Your task to perform on an android device: What is the news today? Image 0: 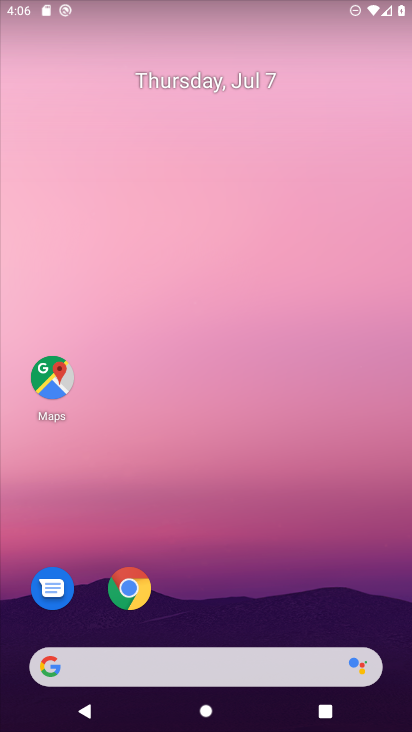
Step 0: click (128, 585)
Your task to perform on an android device: What is the news today? Image 1: 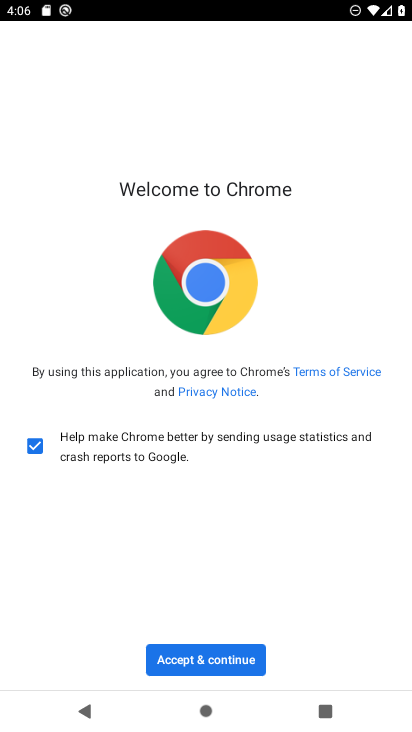
Step 1: click (199, 660)
Your task to perform on an android device: What is the news today? Image 2: 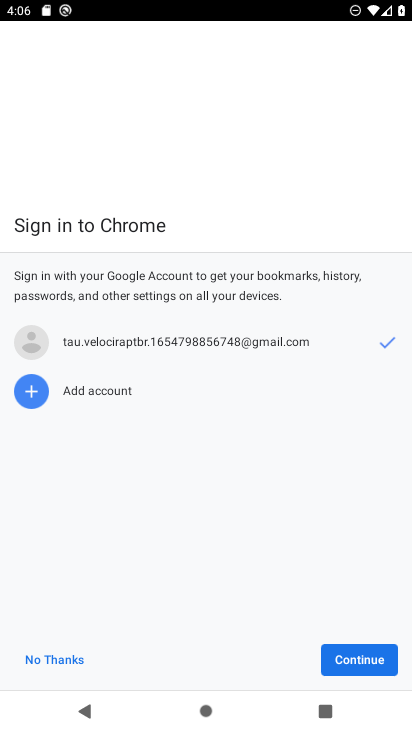
Step 2: click (340, 656)
Your task to perform on an android device: What is the news today? Image 3: 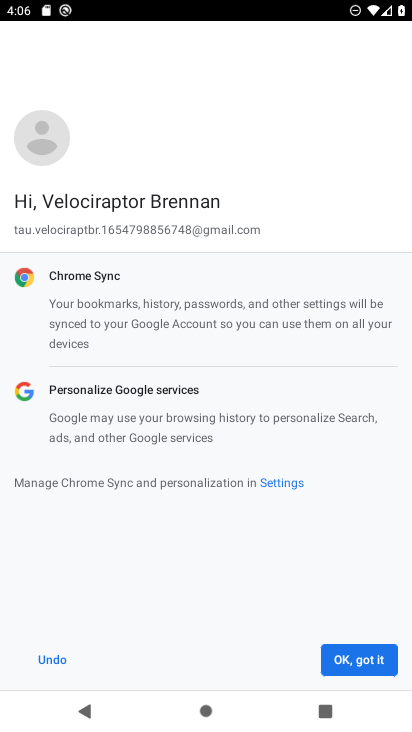
Step 3: click (340, 656)
Your task to perform on an android device: What is the news today? Image 4: 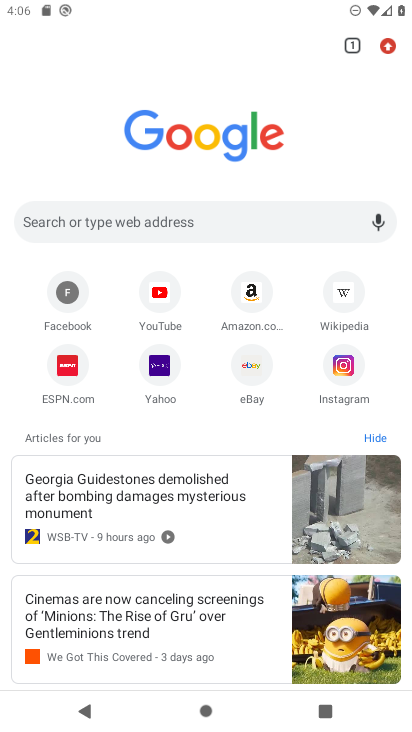
Step 4: click (248, 220)
Your task to perform on an android device: What is the news today? Image 5: 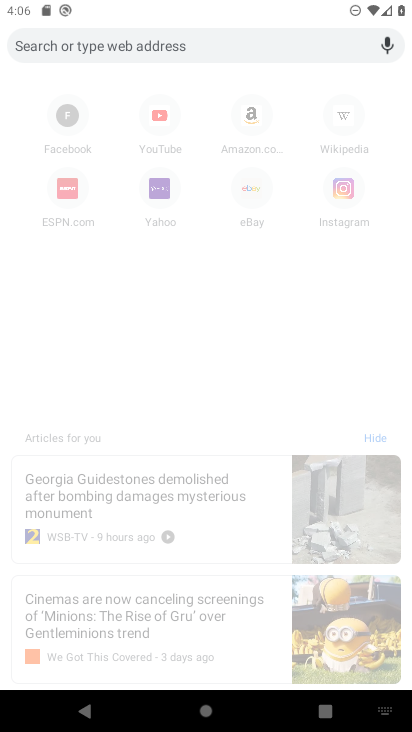
Step 5: type "What is the news today?"
Your task to perform on an android device: What is the news today? Image 6: 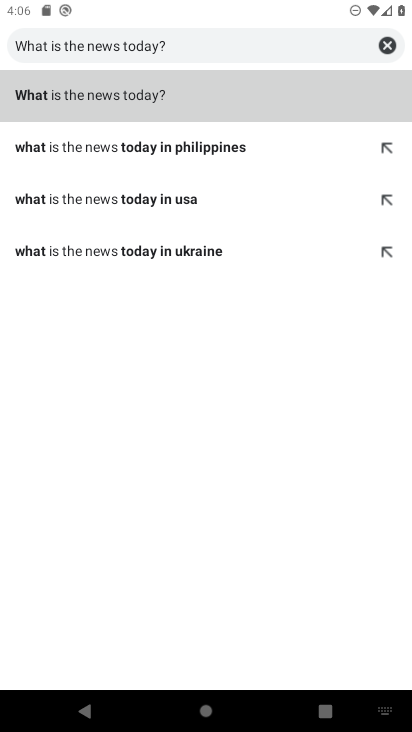
Step 6: click (160, 101)
Your task to perform on an android device: What is the news today? Image 7: 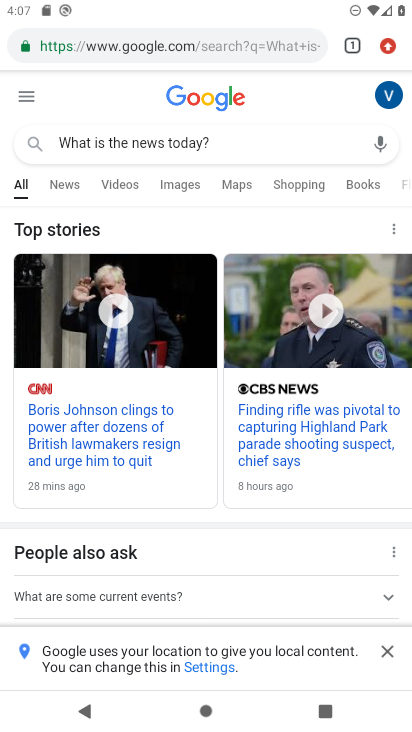
Step 7: task complete